Your task to perform on an android device: Search for pizza restaurants on Maps Image 0: 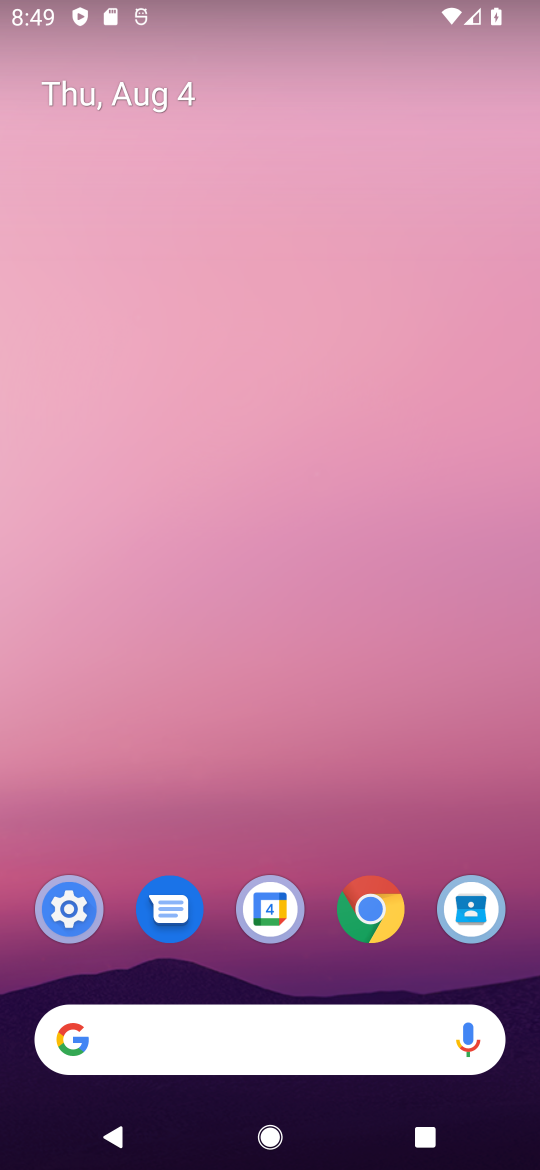
Step 0: press home button
Your task to perform on an android device: Search for pizza restaurants on Maps Image 1: 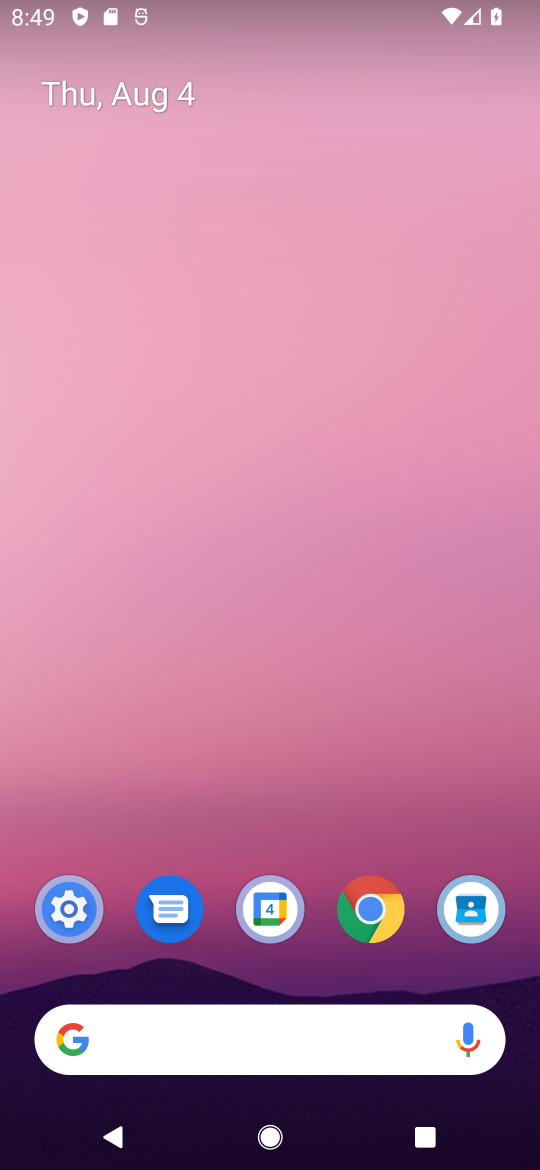
Step 1: drag from (309, 812) to (359, 261)
Your task to perform on an android device: Search for pizza restaurants on Maps Image 2: 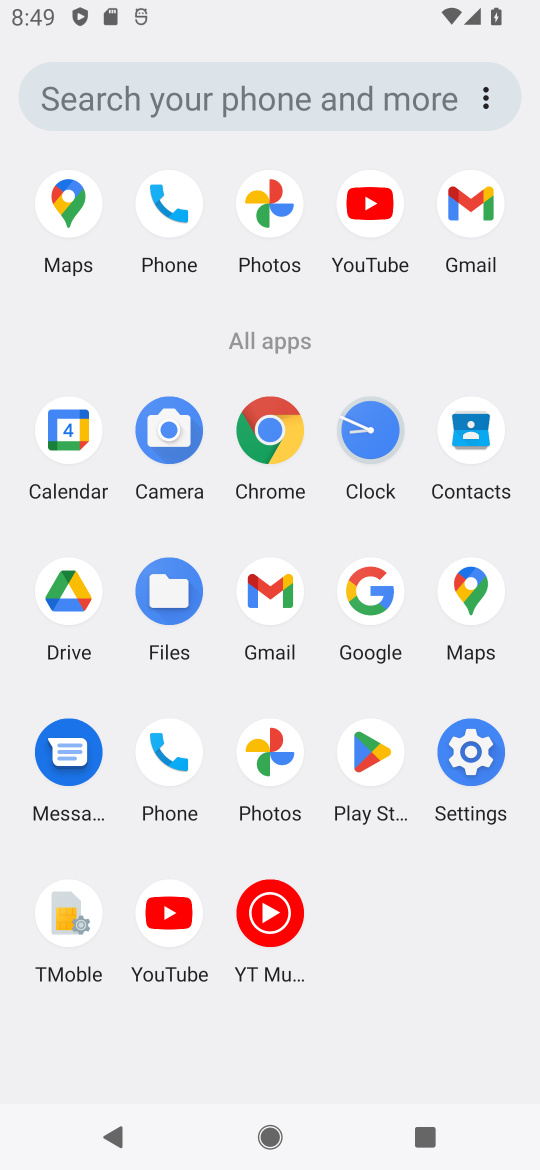
Step 2: click (472, 607)
Your task to perform on an android device: Search for pizza restaurants on Maps Image 3: 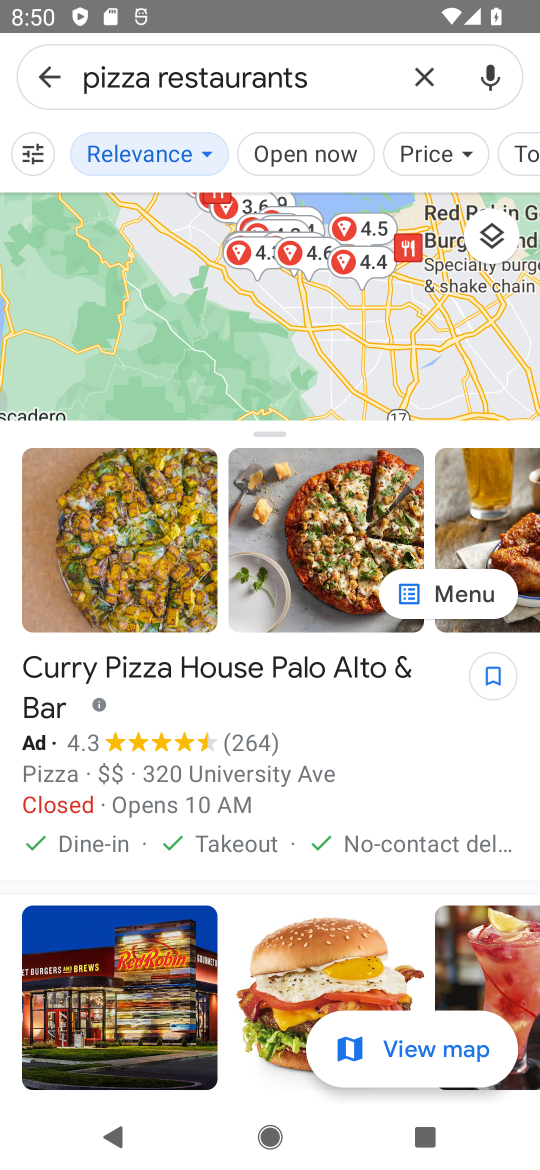
Step 3: task complete